Your task to perform on an android device: check out phone information Image 0: 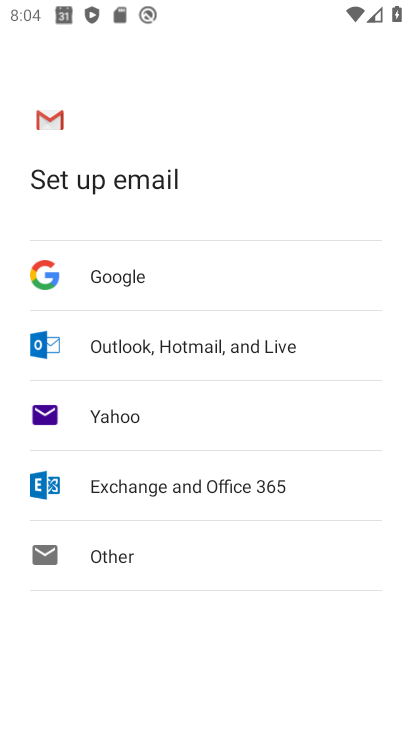
Step 0: press home button
Your task to perform on an android device: check out phone information Image 1: 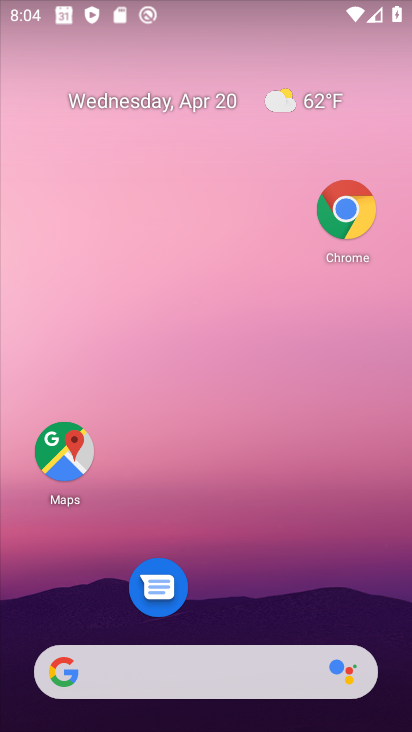
Step 1: drag from (245, 627) to (266, 80)
Your task to perform on an android device: check out phone information Image 2: 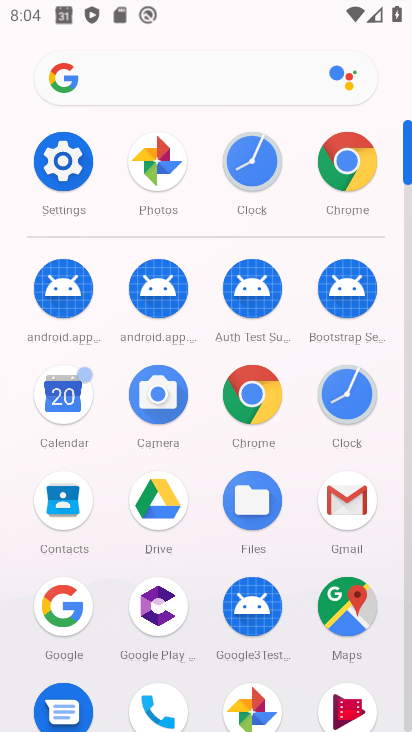
Step 2: click (75, 171)
Your task to perform on an android device: check out phone information Image 3: 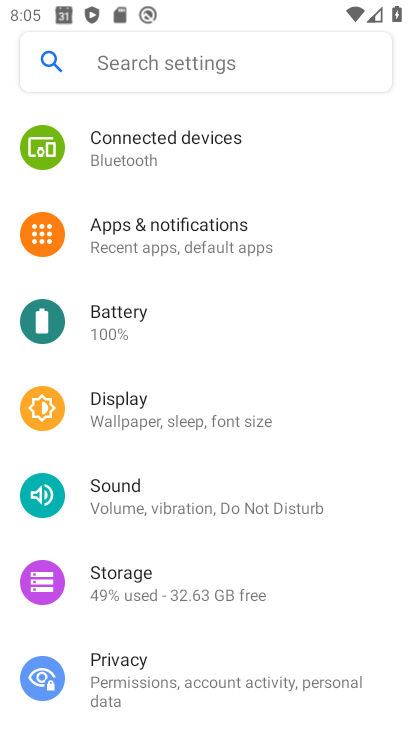
Step 3: drag from (191, 696) to (192, 122)
Your task to perform on an android device: check out phone information Image 4: 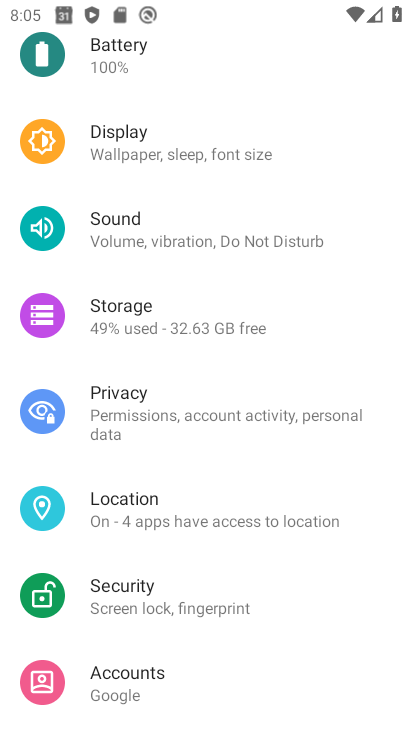
Step 4: drag from (167, 630) to (212, 174)
Your task to perform on an android device: check out phone information Image 5: 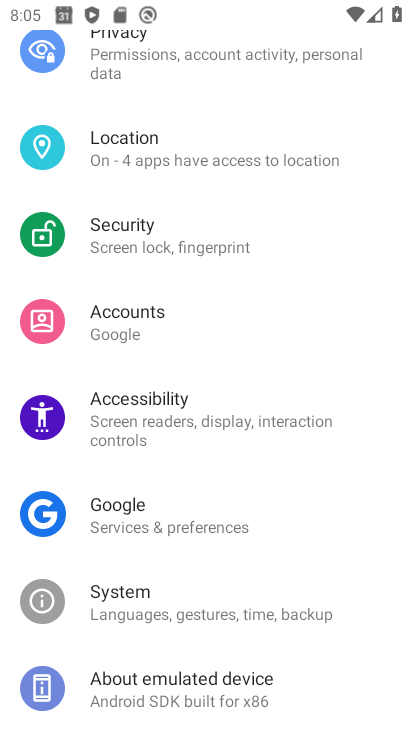
Step 5: click (201, 680)
Your task to perform on an android device: check out phone information Image 6: 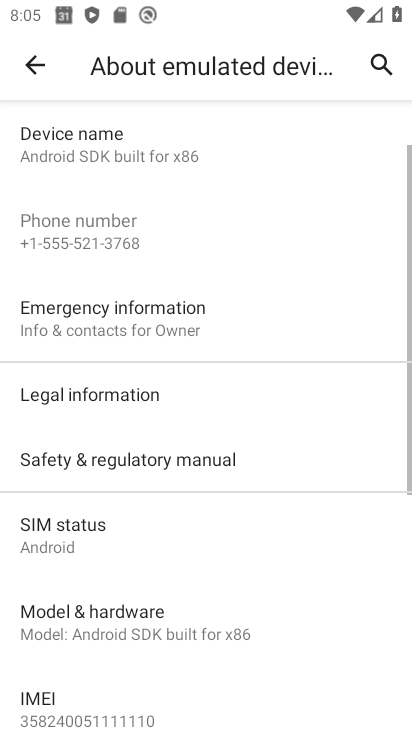
Step 6: task complete